Your task to perform on an android device: find which apps use the phone's location Image 0: 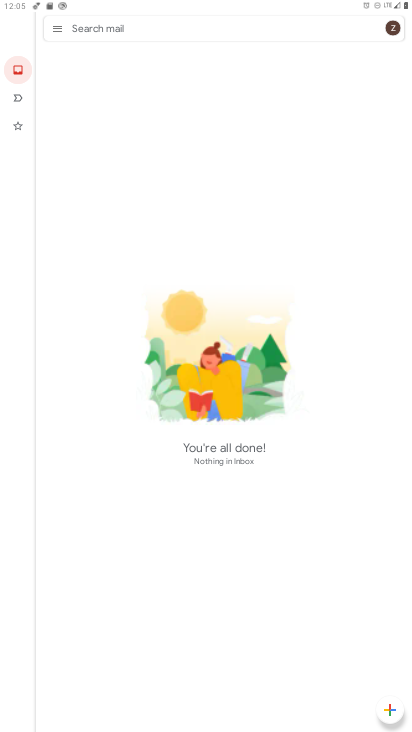
Step 0: press home button
Your task to perform on an android device: find which apps use the phone's location Image 1: 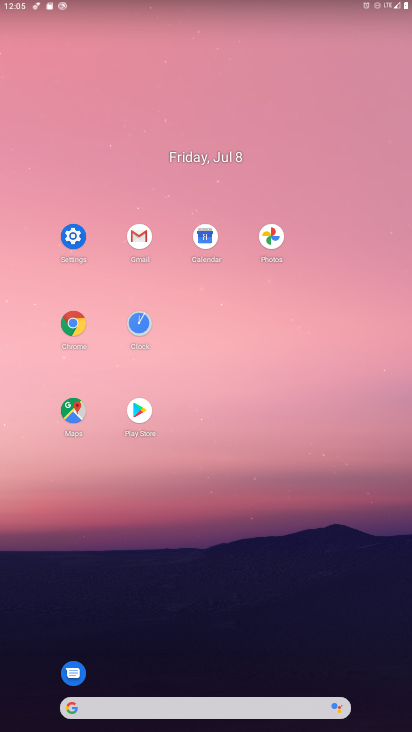
Step 1: click (64, 249)
Your task to perform on an android device: find which apps use the phone's location Image 2: 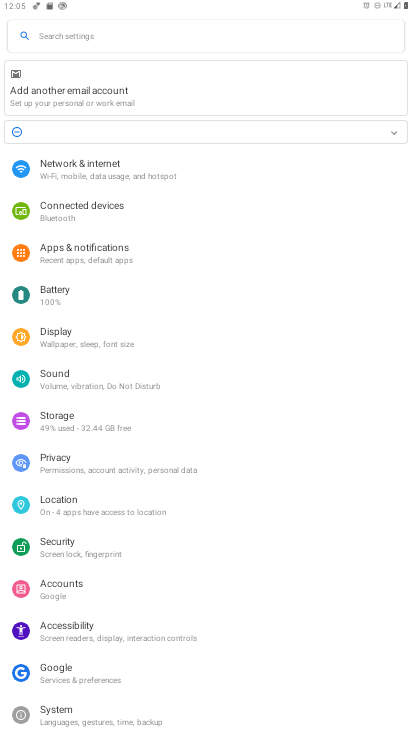
Step 2: click (168, 494)
Your task to perform on an android device: find which apps use the phone's location Image 3: 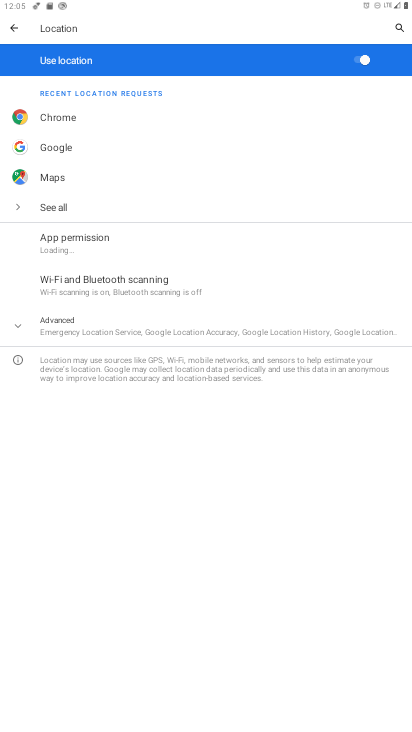
Step 3: task complete